Your task to perform on an android device: Search for Mexican restaurants on Maps Image 0: 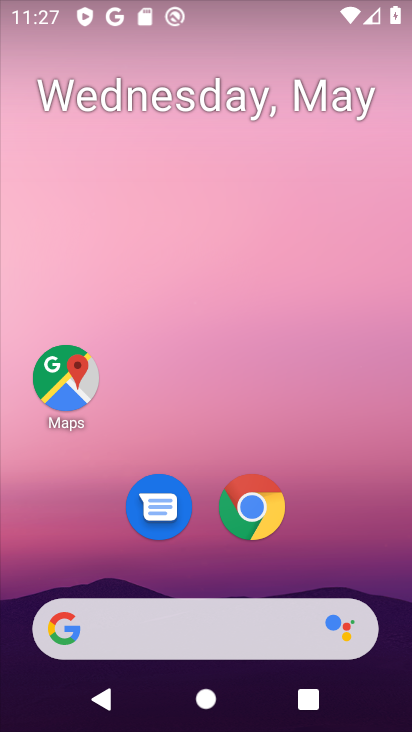
Step 0: press home button
Your task to perform on an android device: Search for Mexican restaurants on Maps Image 1: 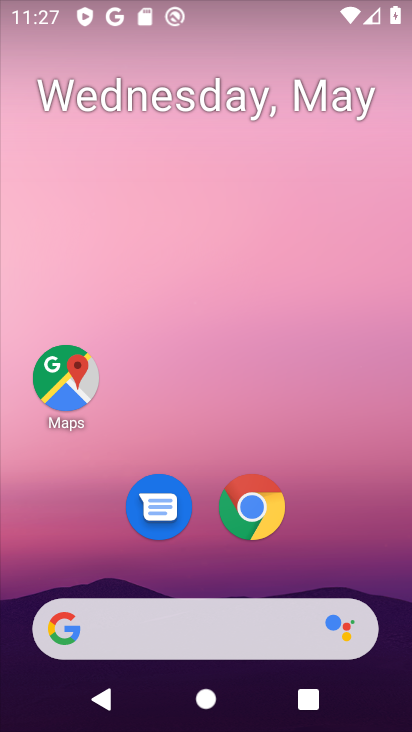
Step 1: click (81, 400)
Your task to perform on an android device: Search for Mexican restaurants on Maps Image 2: 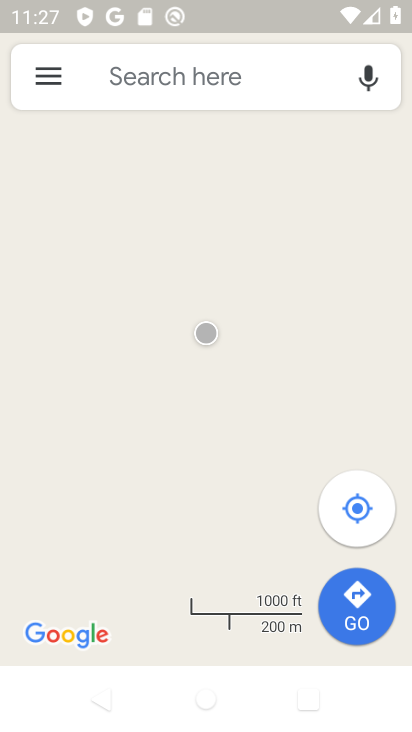
Step 2: click (194, 91)
Your task to perform on an android device: Search for Mexican restaurants on Maps Image 3: 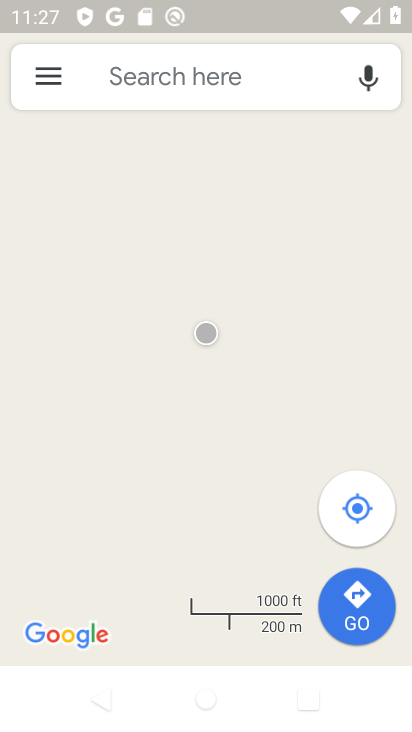
Step 3: click (194, 91)
Your task to perform on an android device: Search for Mexican restaurants on Maps Image 4: 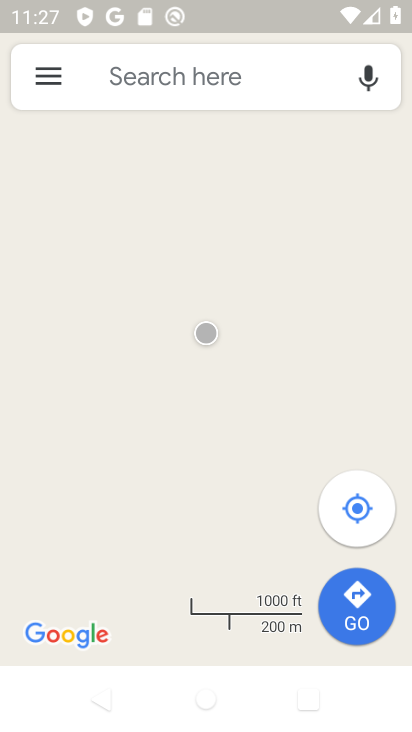
Step 4: click (194, 91)
Your task to perform on an android device: Search for Mexican restaurants on Maps Image 5: 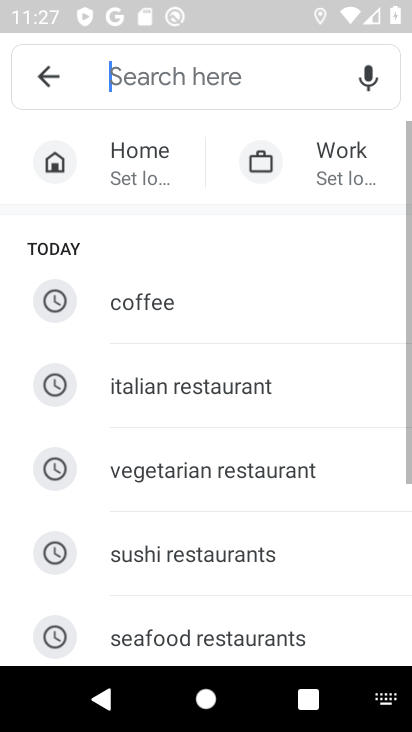
Step 5: type "Mexican restaurants "
Your task to perform on an android device: Search for Mexican restaurants on Maps Image 6: 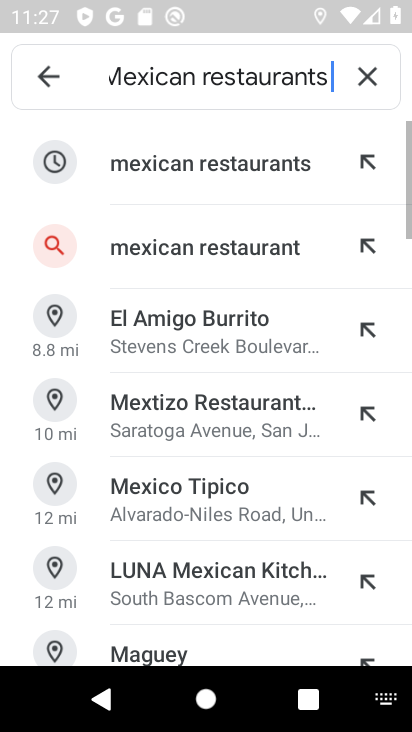
Step 6: click (329, 166)
Your task to perform on an android device: Search for Mexican restaurants on Maps Image 7: 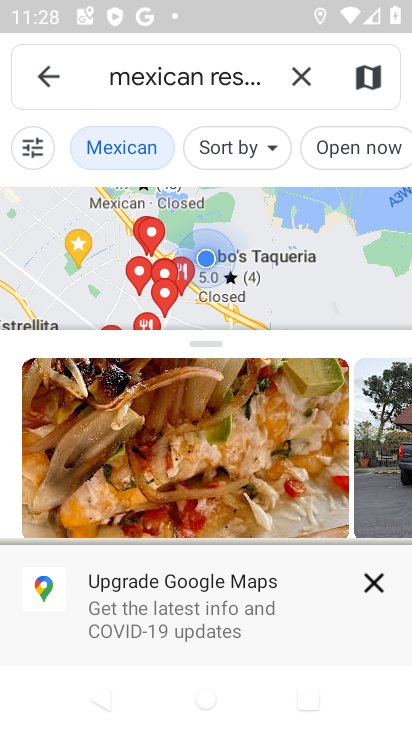
Step 7: task complete